Your task to perform on an android device: What is the news today? Image 0: 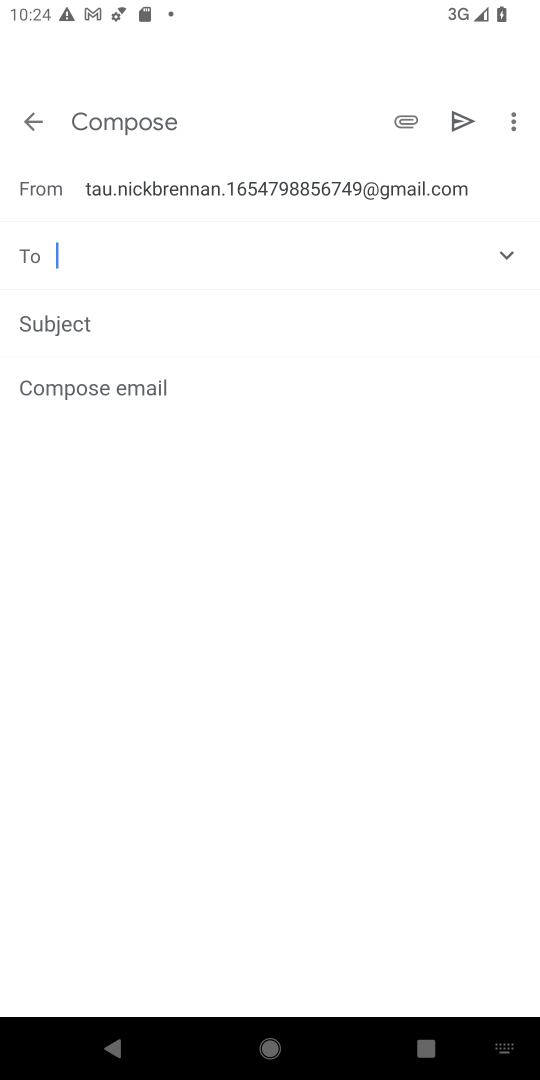
Step 0: press home button
Your task to perform on an android device: What is the news today? Image 1: 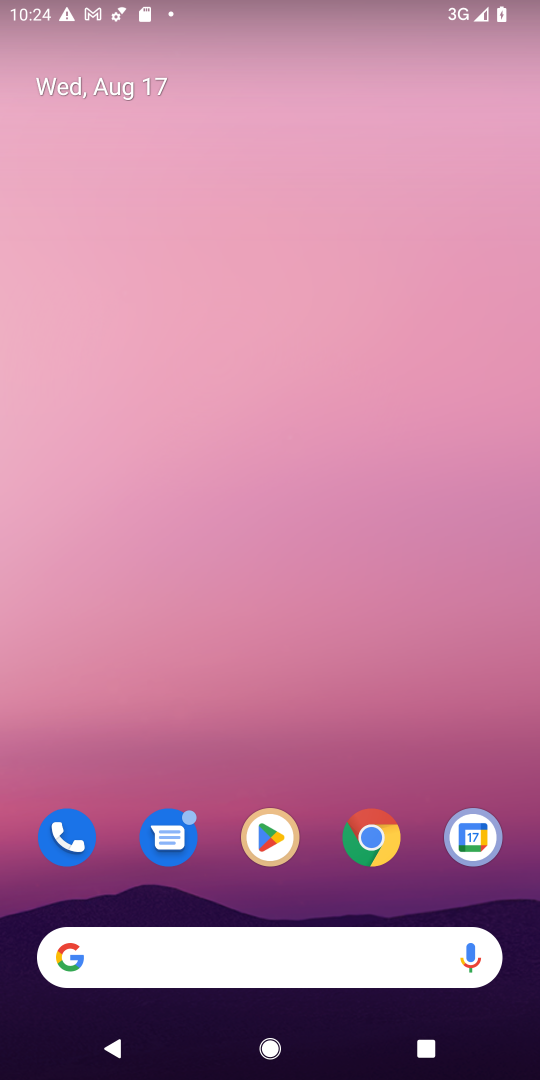
Step 1: drag from (214, 943) to (293, 183)
Your task to perform on an android device: What is the news today? Image 2: 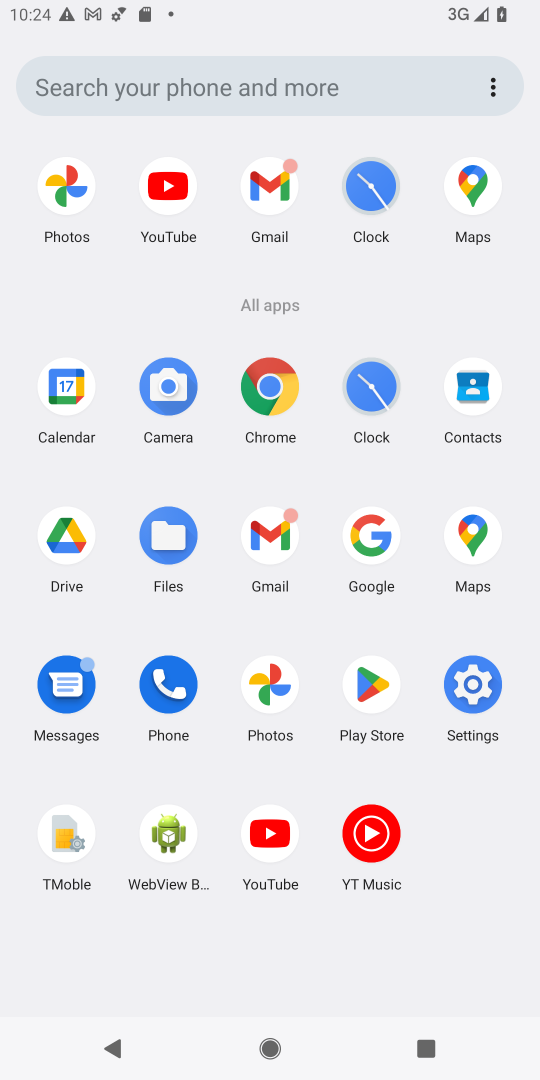
Step 2: click (368, 536)
Your task to perform on an android device: What is the news today? Image 3: 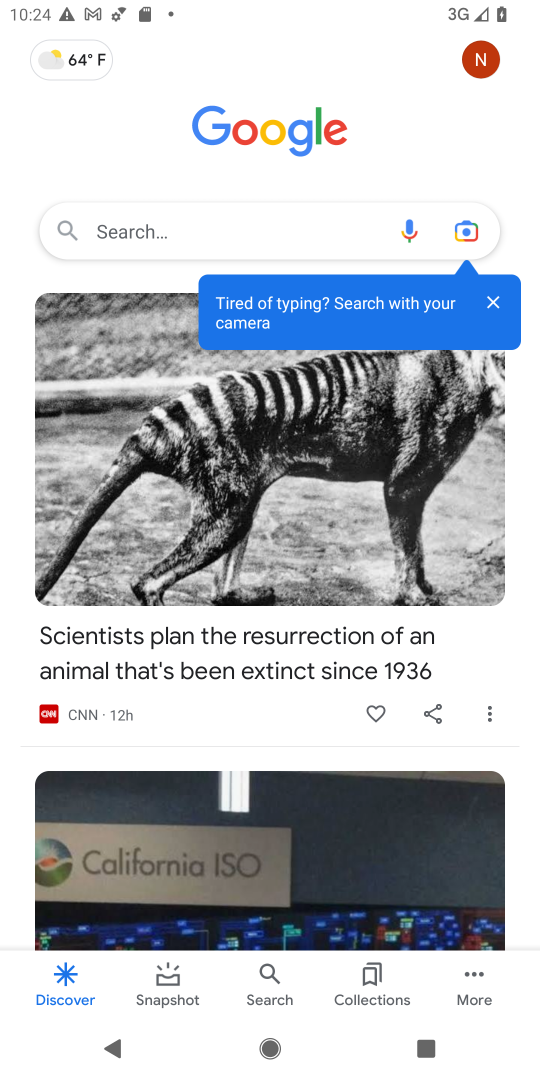
Step 3: click (220, 233)
Your task to perform on an android device: What is the news today? Image 4: 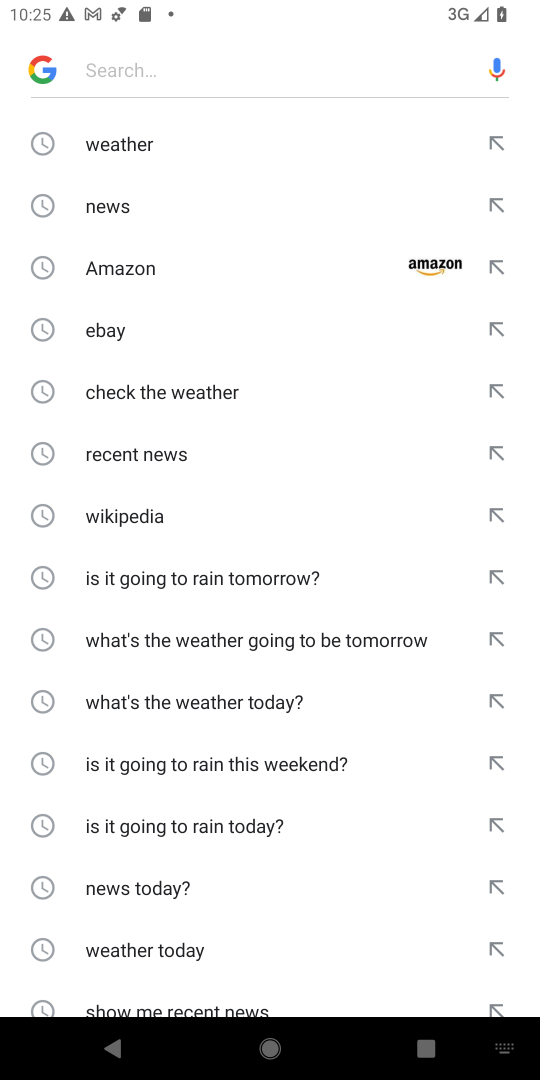
Step 4: type "What is the news today"
Your task to perform on an android device: What is the news today? Image 5: 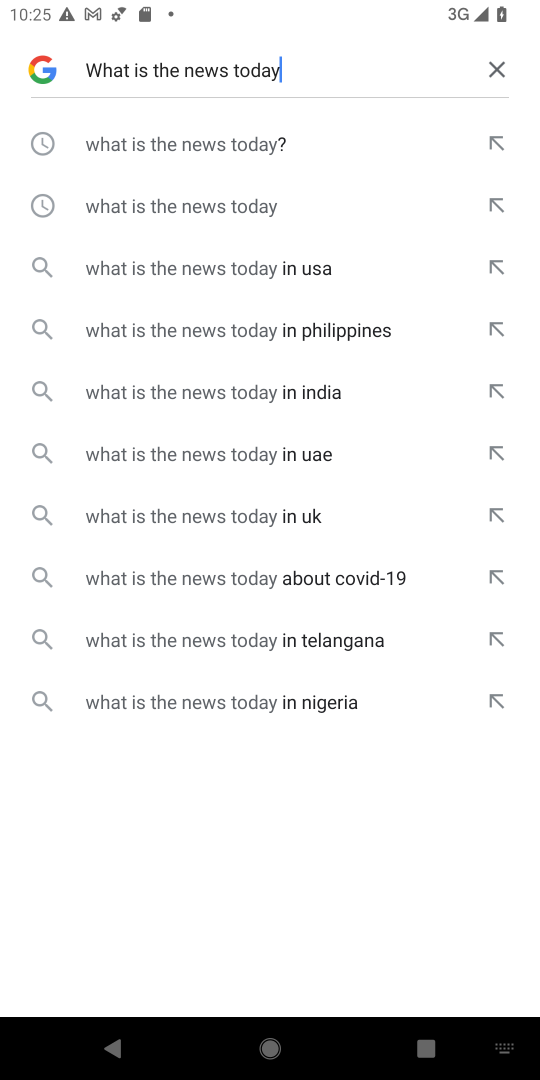
Step 5: click (212, 140)
Your task to perform on an android device: What is the news today? Image 6: 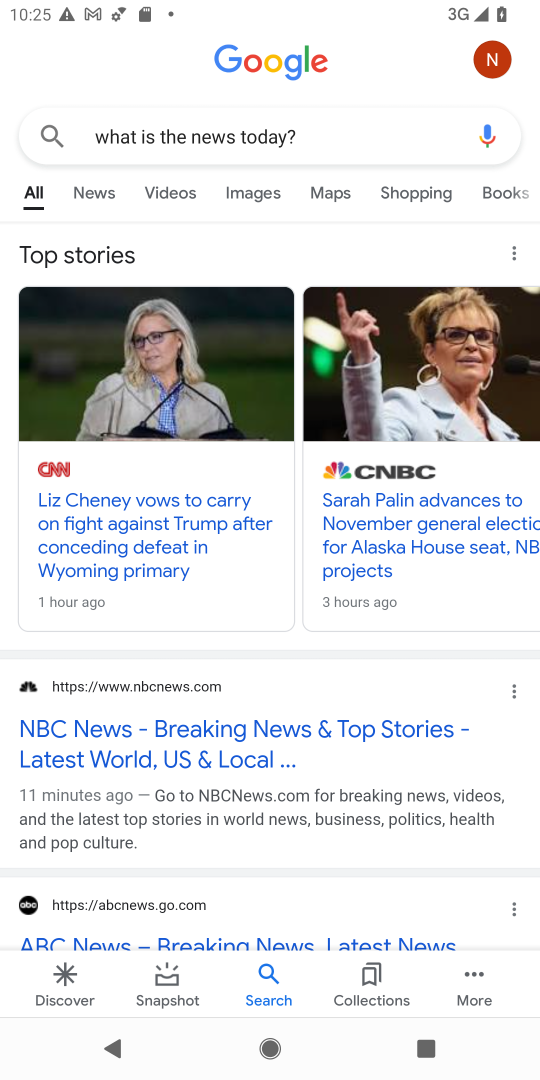
Step 6: click (194, 526)
Your task to perform on an android device: What is the news today? Image 7: 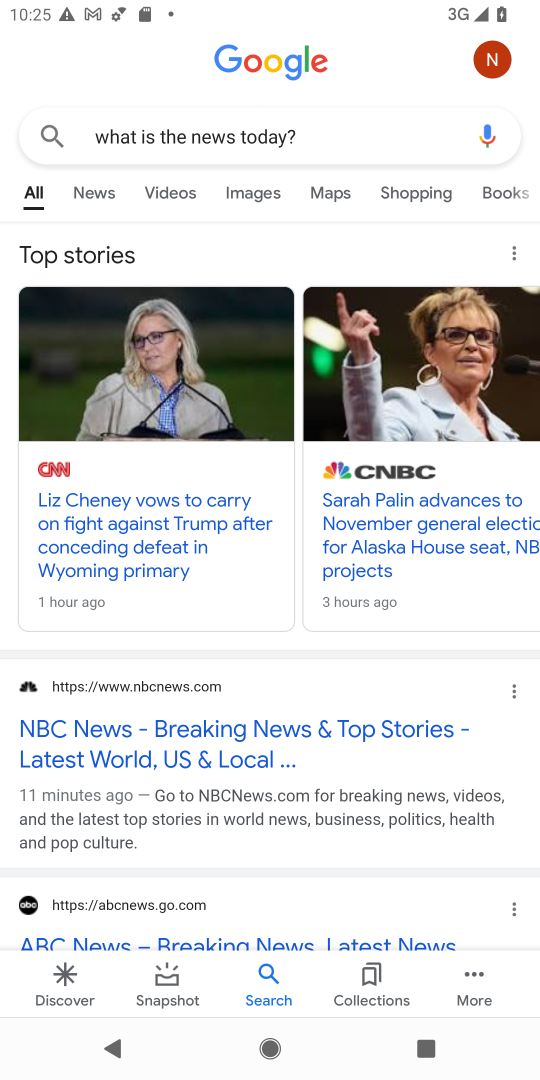
Step 7: click (194, 526)
Your task to perform on an android device: What is the news today? Image 8: 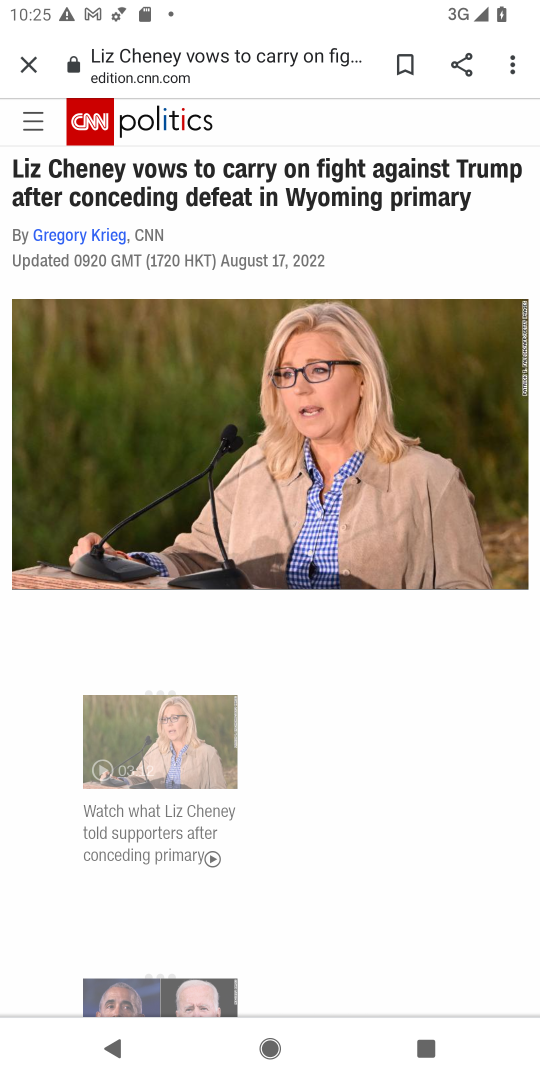
Step 8: task complete